Your task to perform on an android device: Go to settings Image 0: 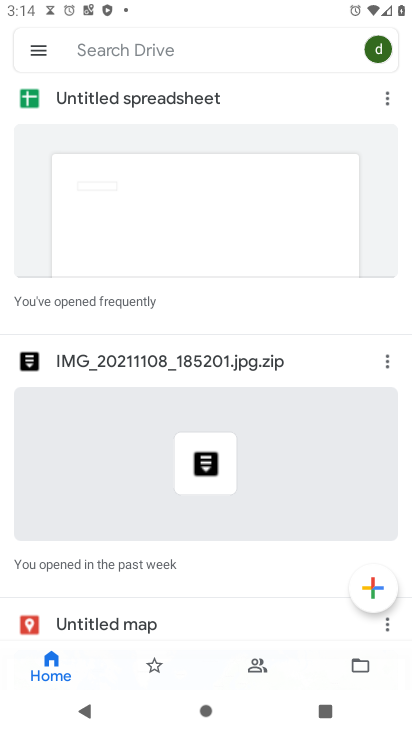
Step 0: press back button
Your task to perform on an android device: Go to settings Image 1: 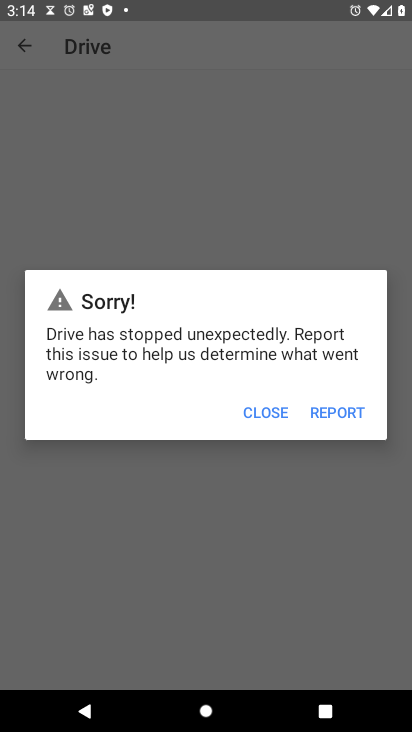
Step 1: press back button
Your task to perform on an android device: Go to settings Image 2: 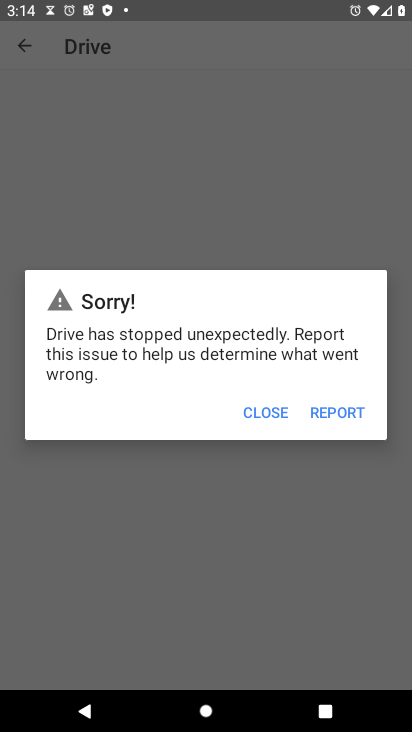
Step 2: press home button
Your task to perform on an android device: Go to settings Image 3: 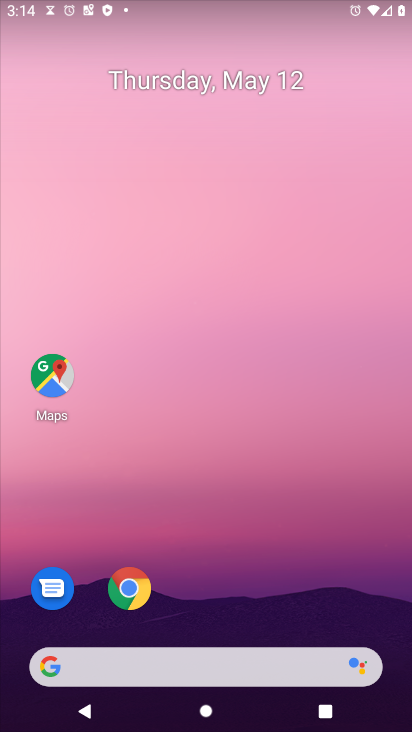
Step 3: drag from (212, 471) to (151, 50)
Your task to perform on an android device: Go to settings Image 4: 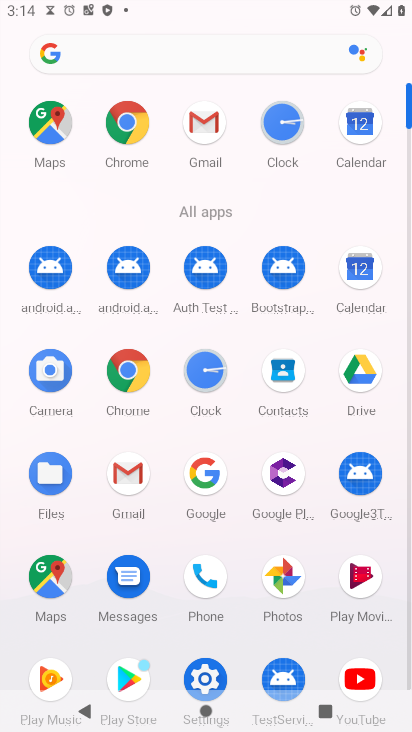
Step 4: drag from (4, 538) to (22, 177)
Your task to perform on an android device: Go to settings Image 5: 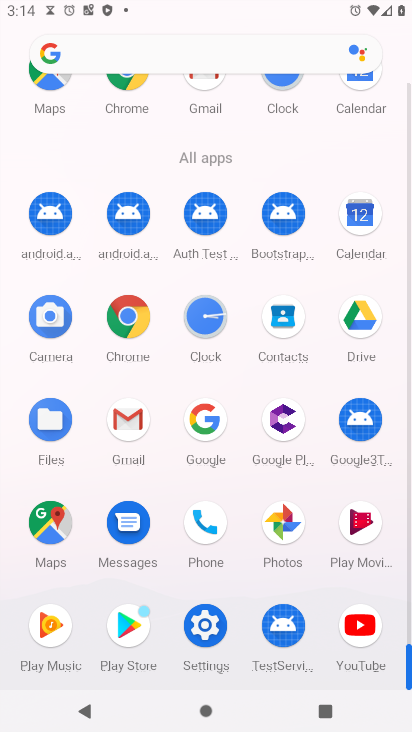
Step 5: click (206, 624)
Your task to perform on an android device: Go to settings Image 6: 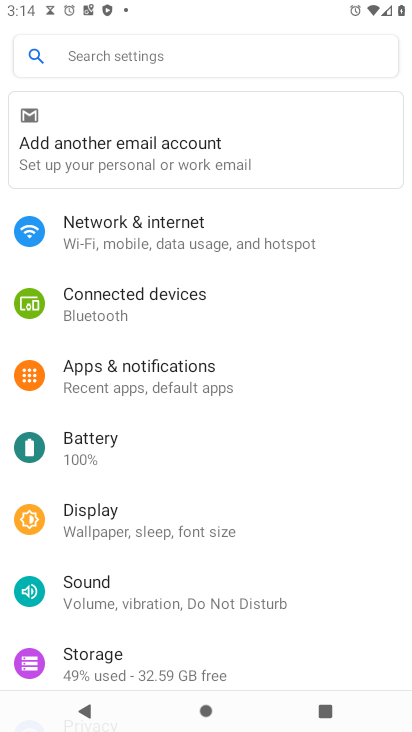
Step 6: task complete